Your task to perform on an android device: open the mobile data screen to see how much data has been used Image 0: 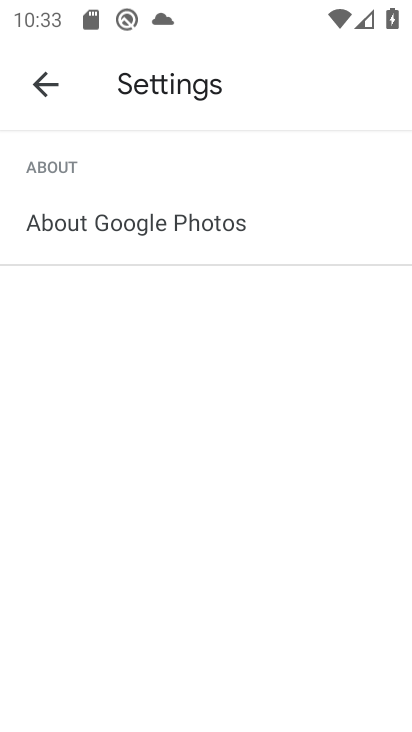
Step 0: press home button
Your task to perform on an android device: open the mobile data screen to see how much data has been used Image 1: 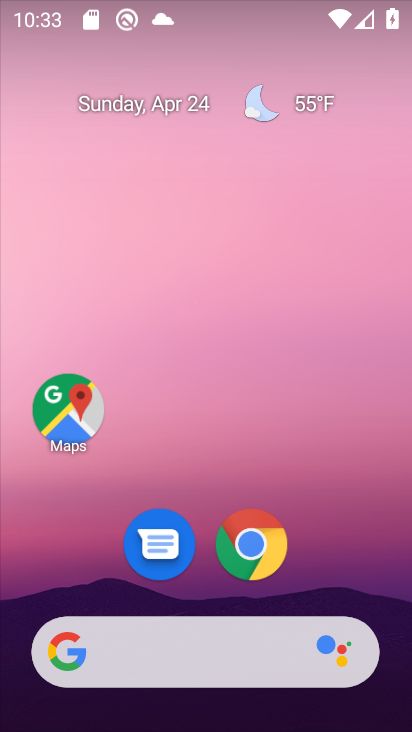
Step 1: drag from (346, 470) to (334, 110)
Your task to perform on an android device: open the mobile data screen to see how much data has been used Image 2: 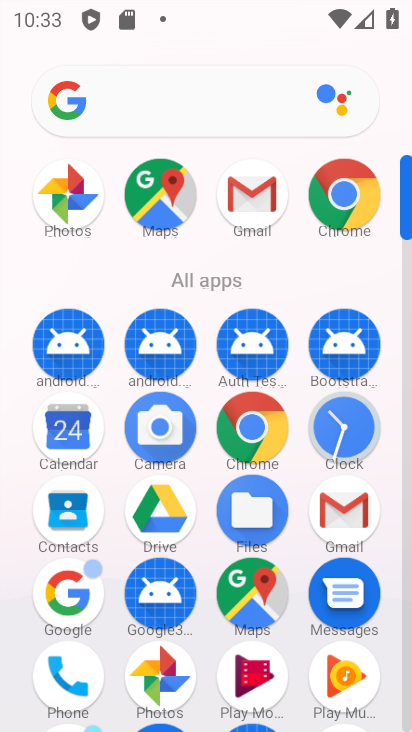
Step 2: drag from (209, 490) to (221, 210)
Your task to perform on an android device: open the mobile data screen to see how much data has been used Image 3: 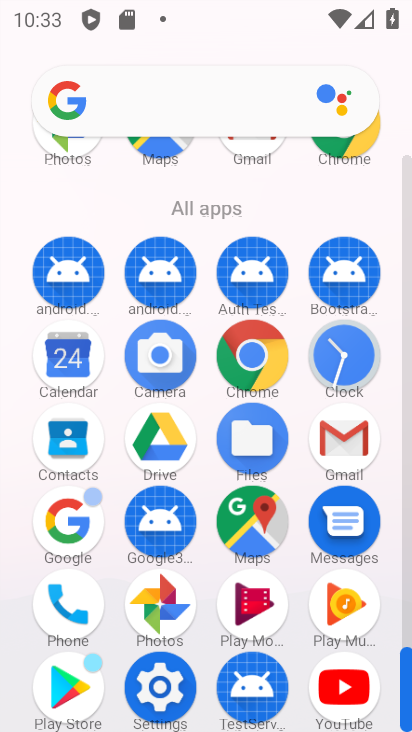
Step 3: click (154, 684)
Your task to perform on an android device: open the mobile data screen to see how much data has been used Image 4: 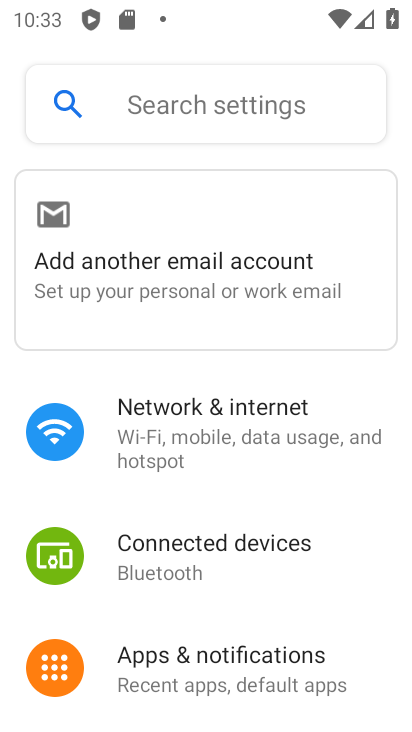
Step 4: click (233, 441)
Your task to perform on an android device: open the mobile data screen to see how much data has been used Image 5: 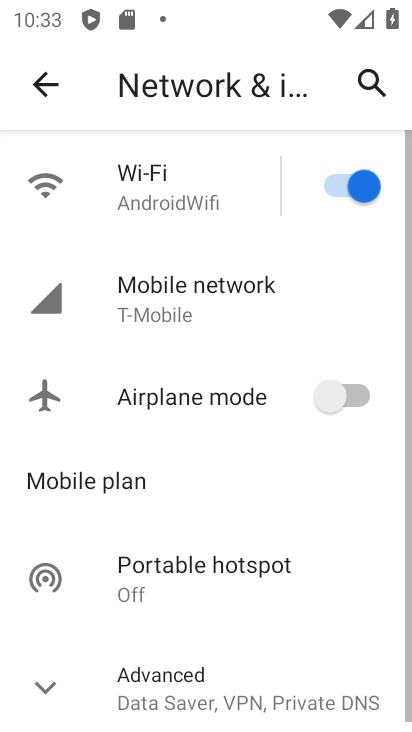
Step 5: click (169, 284)
Your task to perform on an android device: open the mobile data screen to see how much data has been used Image 6: 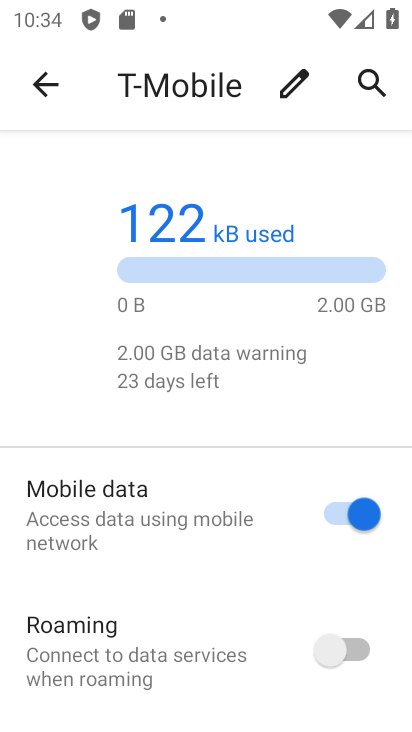
Step 6: task complete